Your task to perform on an android device: turn pop-ups on in chrome Image 0: 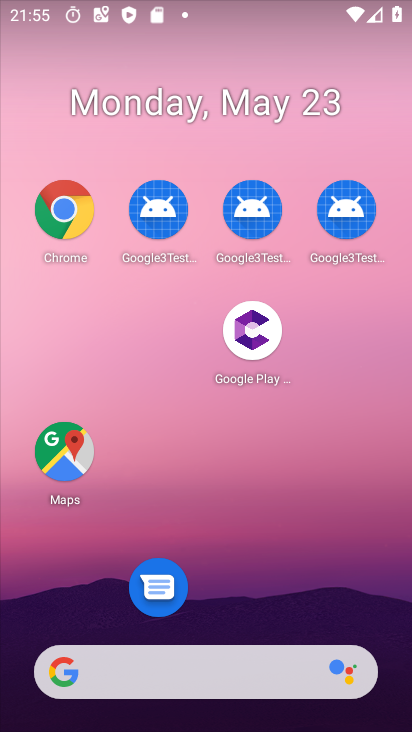
Step 0: click (70, 201)
Your task to perform on an android device: turn pop-ups on in chrome Image 1: 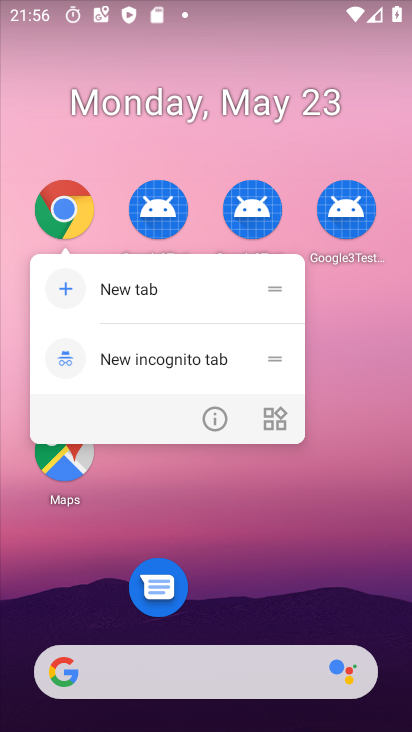
Step 1: click (63, 214)
Your task to perform on an android device: turn pop-ups on in chrome Image 2: 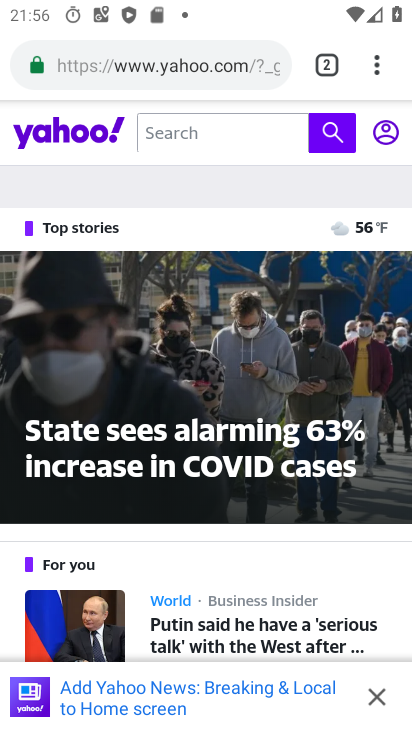
Step 2: click (381, 63)
Your task to perform on an android device: turn pop-ups on in chrome Image 3: 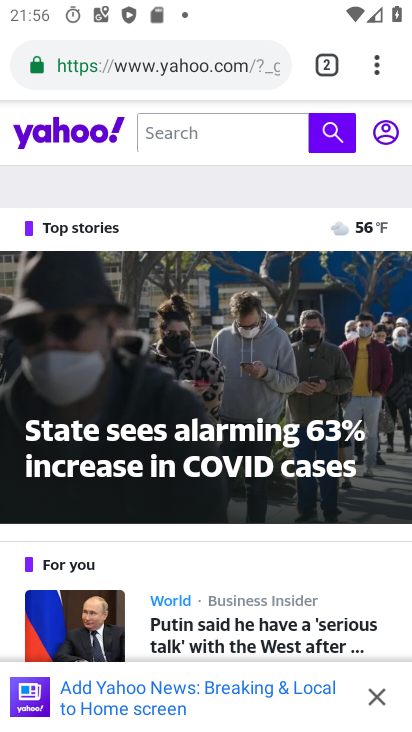
Step 3: click (373, 68)
Your task to perform on an android device: turn pop-ups on in chrome Image 4: 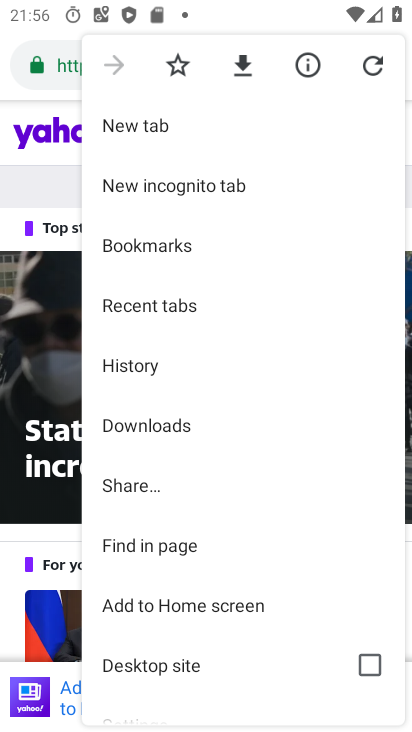
Step 4: drag from (161, 540) to (161, 30)
Your task to perform on an android device: turn pop-ups on in chrome Image 5: 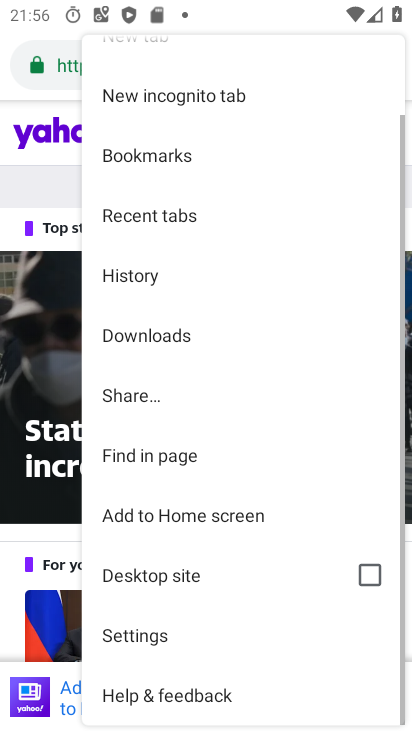
Step 5: click (137, 638)
Your task to perform on an android device: turn pop-ups on in chrome Image 6: 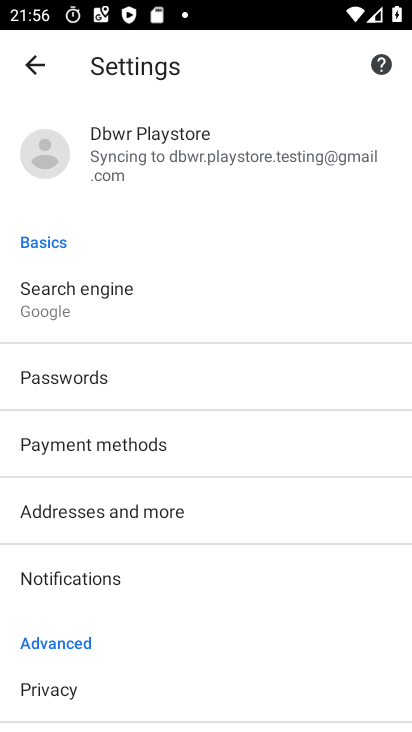
Step 6: drag from (252, 646) to (340, 88)
Your task to perform on an android device: turn pop-ups on in chrome Image 7: 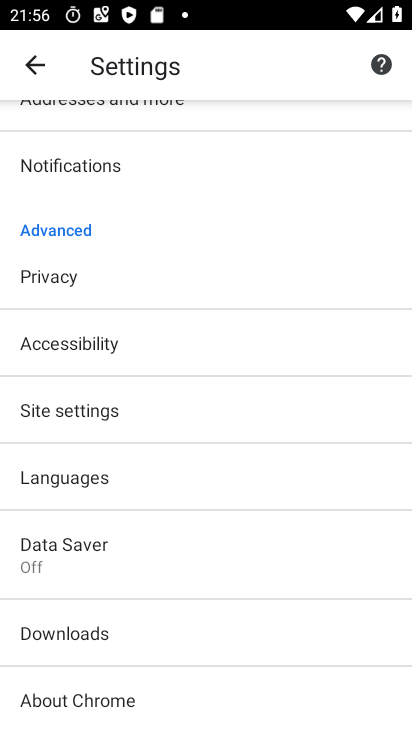
Step 7: click (80, 416)
Your task to perform on an android device: turn pop-ups on in chrome Image 8: 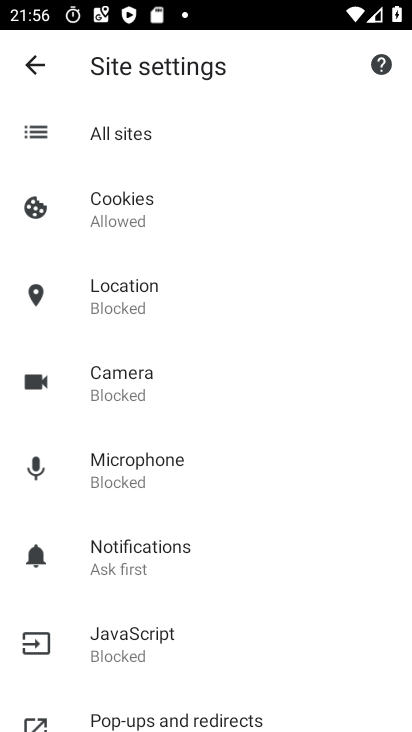
Step 8: click (161, 713)
Your task to perform on an android device: turn pop-ups on in chrome Image 9: 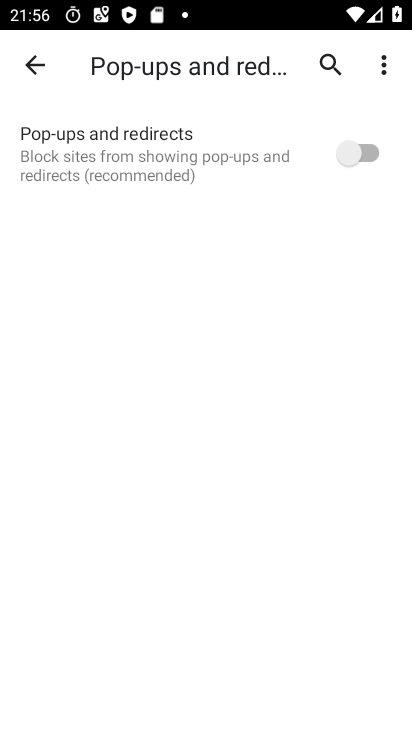
Step 9: click (369, 157)
Your task to perform on an android device: turn pop-ups on in chrome Image 10: 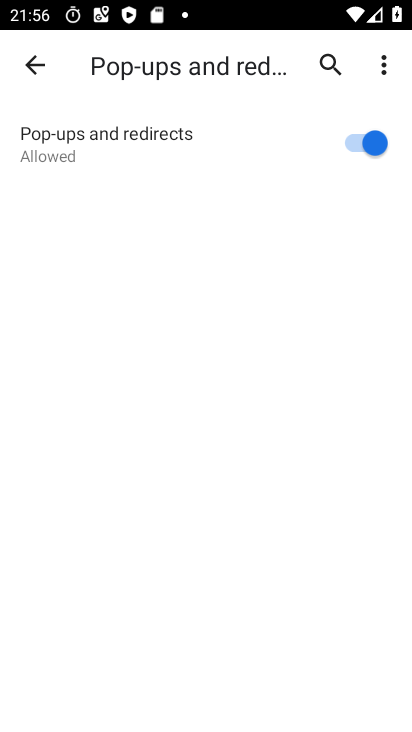
Step 10: task complete